Your task to perform on an android device: What's the weather today? Image 0: 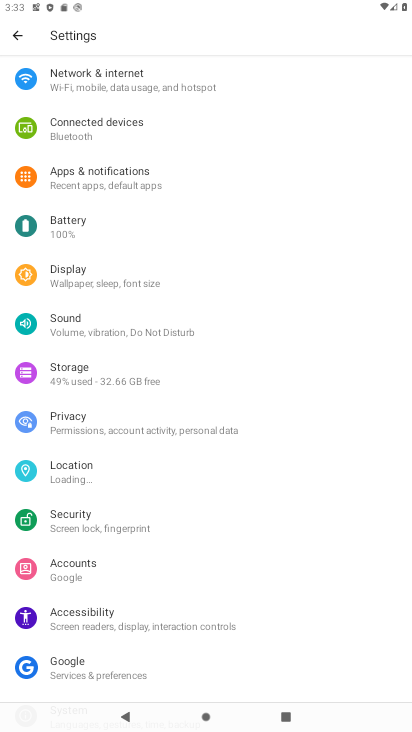
Step 0: press home button
Your task to perform on an android device: What's the weather today? Image 1: 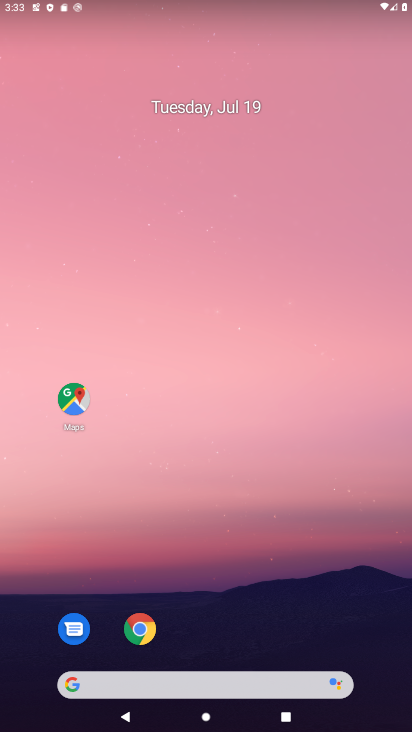
Step 1: drag from (141, 679) to (149, 281)
Your task to perform on an android device: What's the weather today? Image 2: 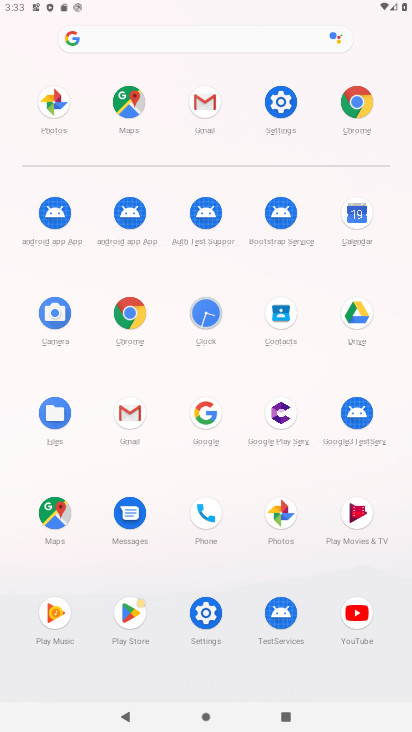
Step 2: click (203, 418)
Your task to perform on an android device: What's the weather today? Image 3: 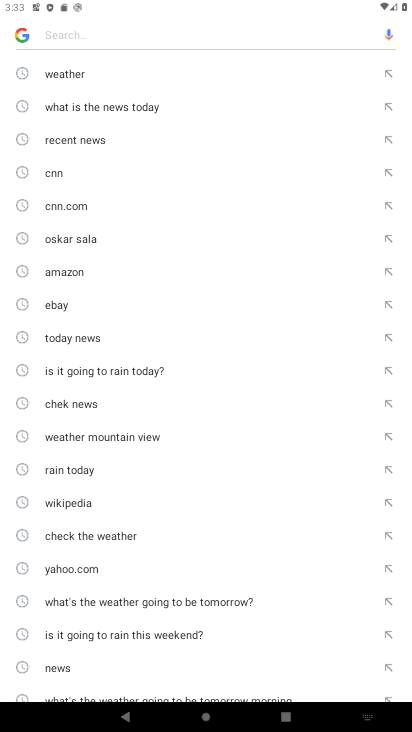
Step 3: drag from (115, 658) to (124, 250)
Your task to perform on an android device: What's the weather today? Image 4: 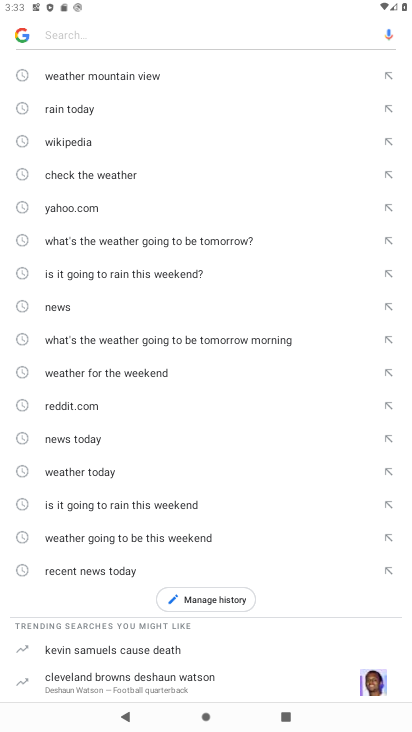
Step 4: click (115, 170)
Your task to perform on an android device: What's the weather today? Image 5: 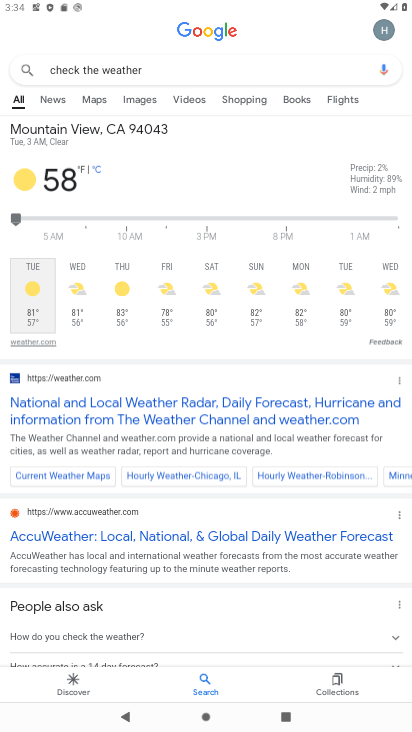
Step 5: task complete